Your task to perform on an android device: allow notifications from all sites in the chrome app Image 0: 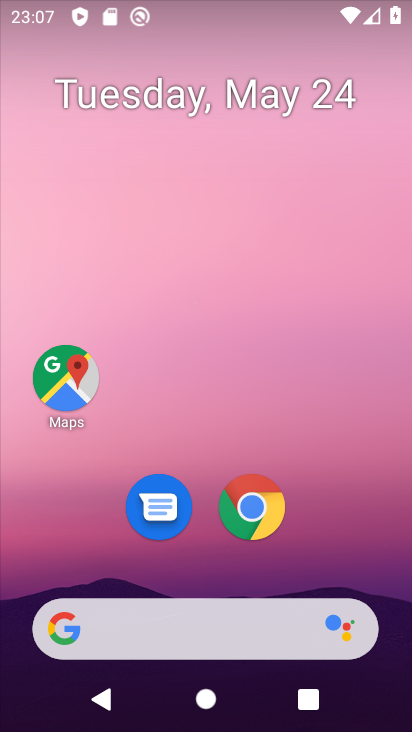
Step 0: drag from (303, 645) to (243, 77)
Your task to perform on an android device: allow notifications from all sites in the chrome app Image 1: 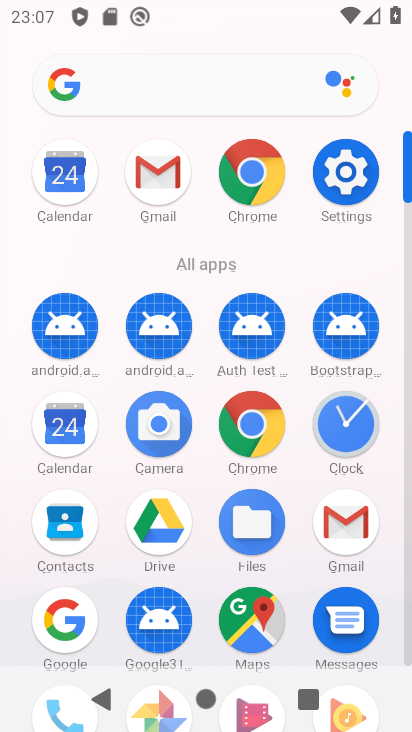
Step 1: click (251, 441)
Your task to perform on an android device: allow notifications from all sites in the chrome app Image 2: 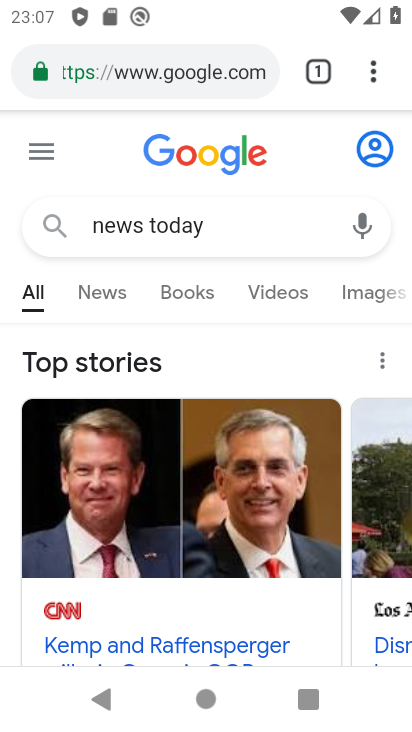
Step 2: drag from (292, 432) to (393, 593)
Your task to perform on an android device: allow notifications from all sites in the chrome app Image 3: 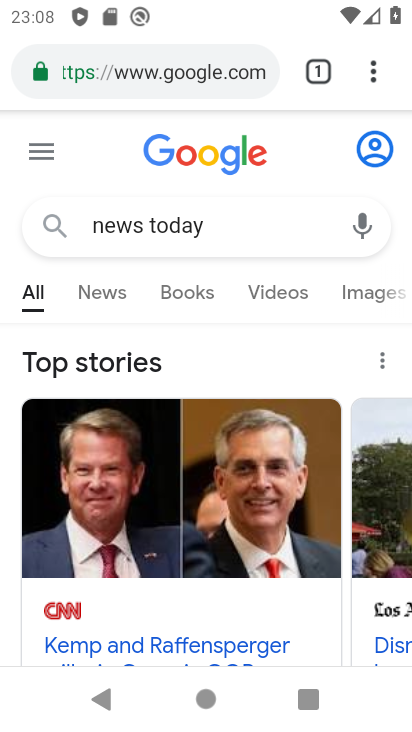
Step 3: drag from (378, 77) to (139, 514)
Your task to perform on an android device: allow notifications from all sites in the chrome app Image 4: 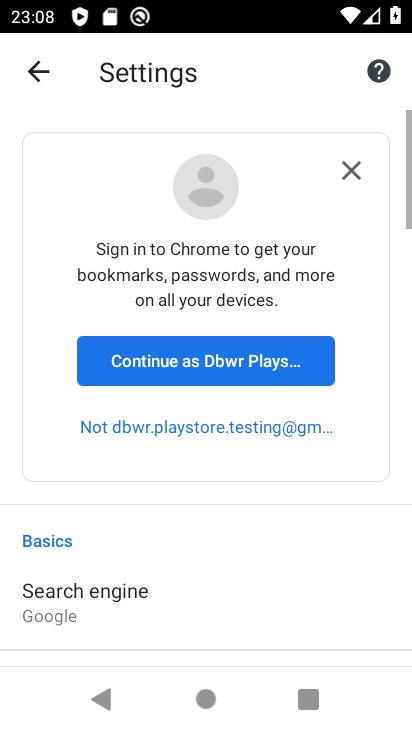
Step 4: drag from (235, 588) to (280, 77)
Your task to perform on an android device: allow notifications from all sites in the chrome app Image 5: 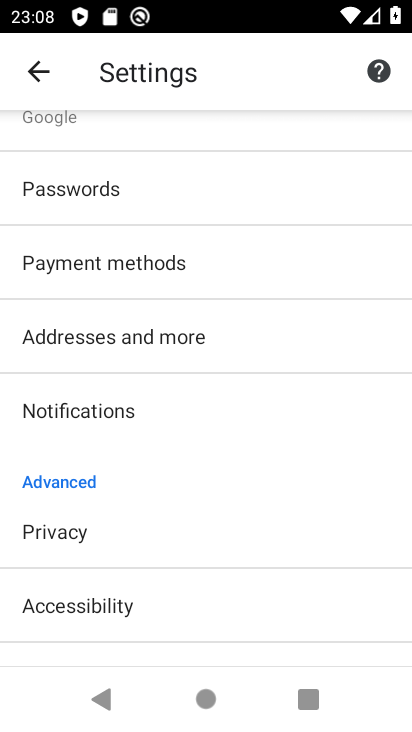
Step 5: drag from (135, 580) to (189, 207)
Your task to perform on an android device: allow notifications from all sites in the chrome app Image 6: 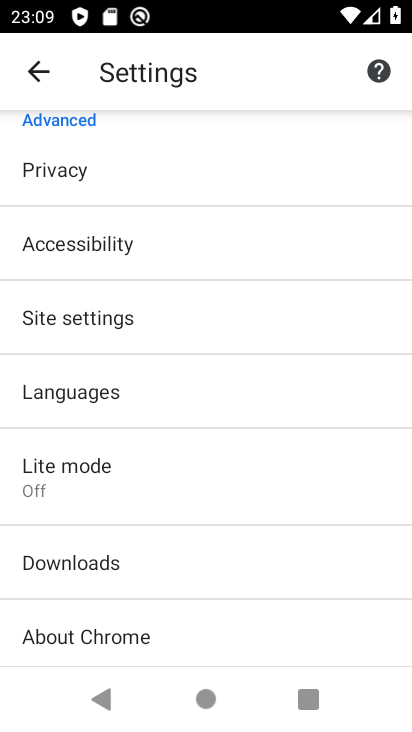
Step 6: click (118, 302)
Your task to perform on an android device: allow notifications from all sites in the chrome app Image 7: 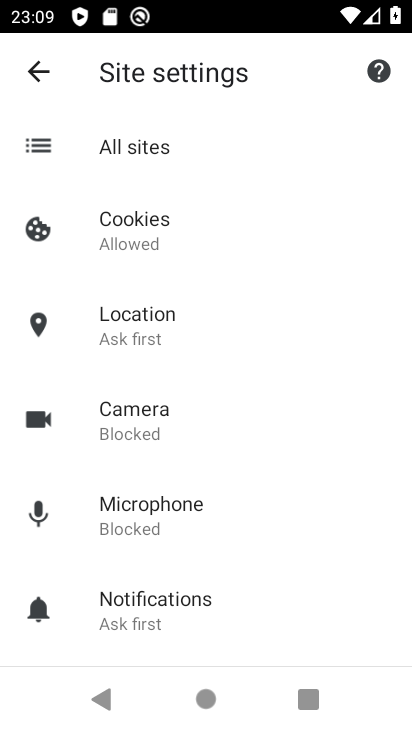
Step 7: click (182, 593)
Your task to perform on an android device: allow notifications from all sites in the chrome app Image 8: 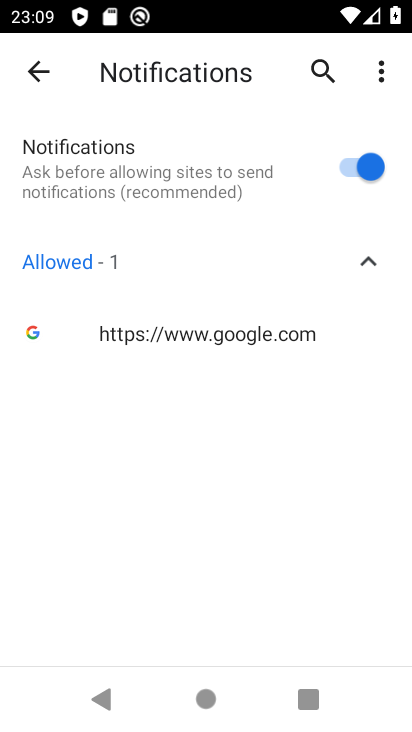
Step 8: task complete